Your task to perform on an android device: Open Chrome and go to the settings page Image 0: 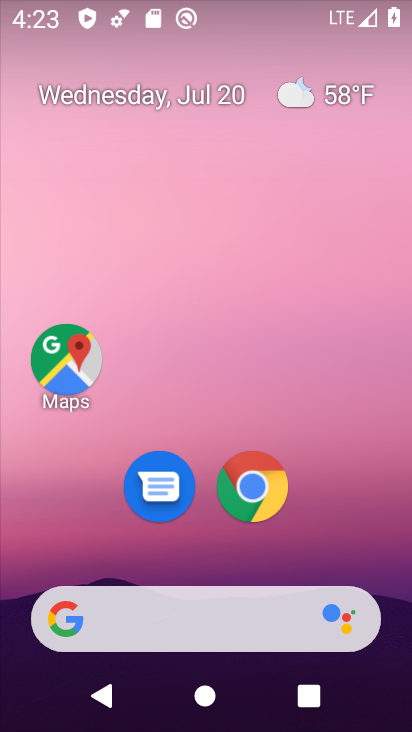
Step 0: click (255, 489)
Your task to perform on an android device: Open Chrome and go to the settings page Image 1: 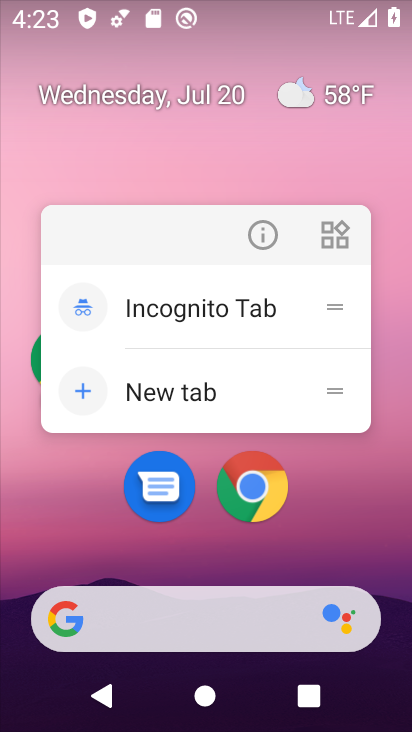
Step 1: click (262, 484)
Your task to perform on an android device: Open Chrome and go to the settings page Image 2: 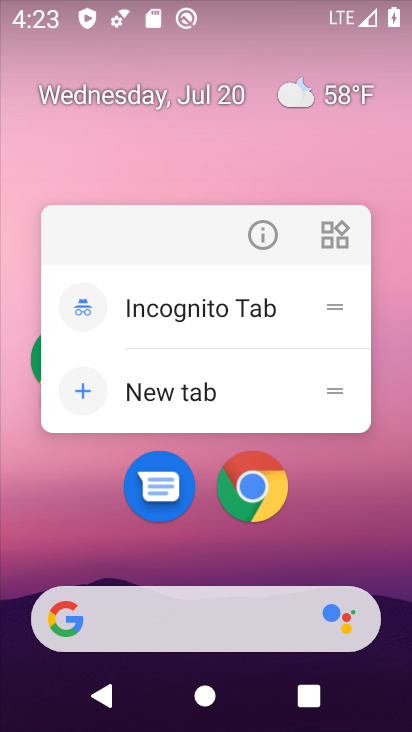
Step 2: click (256, 484)
Your task to perform on an android device: Open Chrome and go to the settings page Image 3: 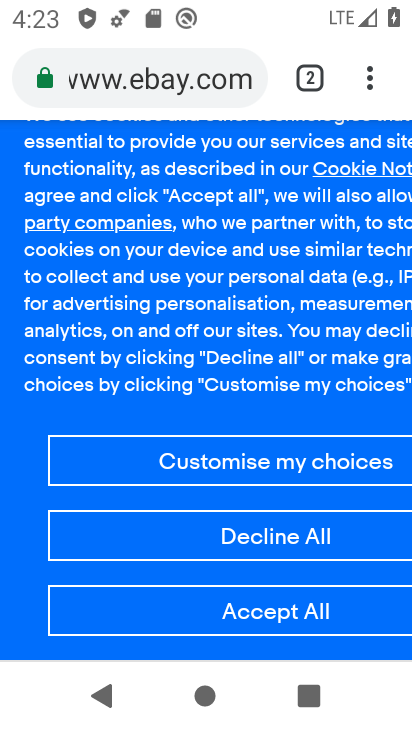
Step 3: task complete